Your task to perform on an android device: Open Chrome and go to settings Image 0: 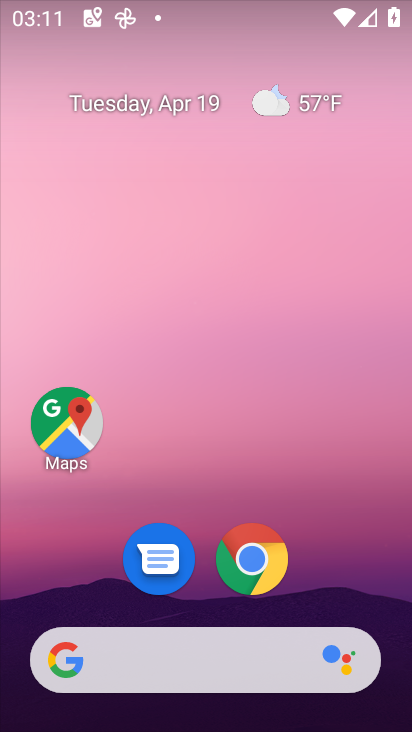
Step 0: drag from (206, 604) to (211, 53)
Your task to perform on an android device: Open Chrome and go to settings Image 1: 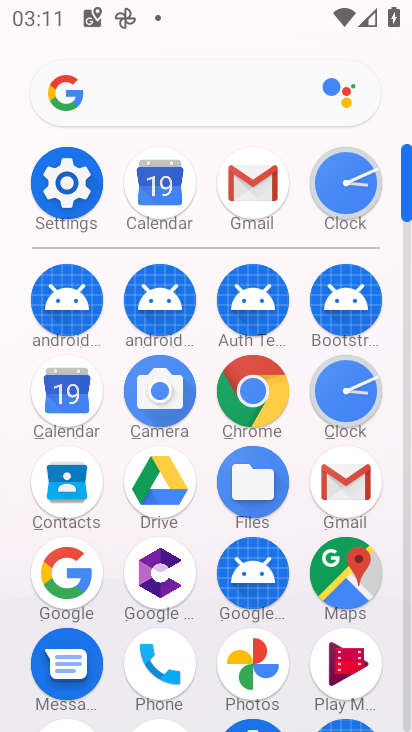
Step 1: click (252, 383)
Your task to perform on an android device: Open Chrome and go to settings Image 2: 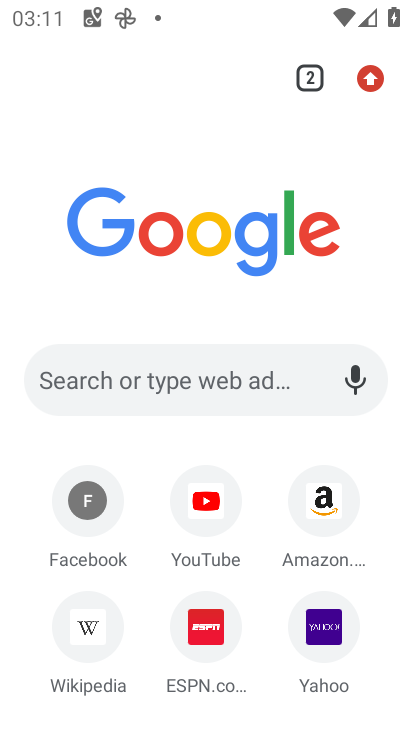
Step 2: click (377, 68)
Your task to perform on an android device: Open Chrome and go to settings Image 3: 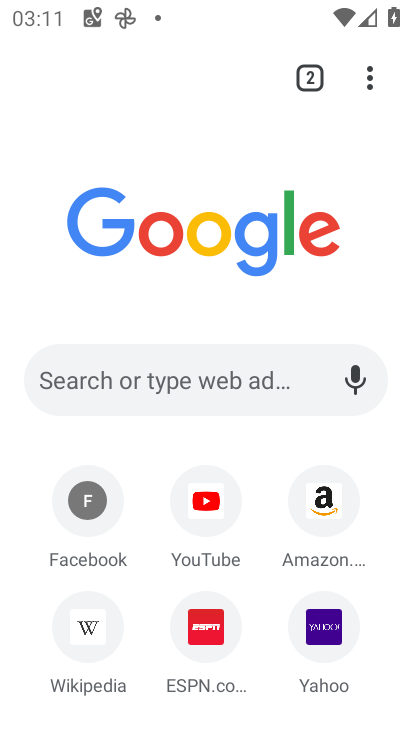
Step 3: click (364, 75)
Your task to perform on an android device: Open Chrome and go to settings Image 4: 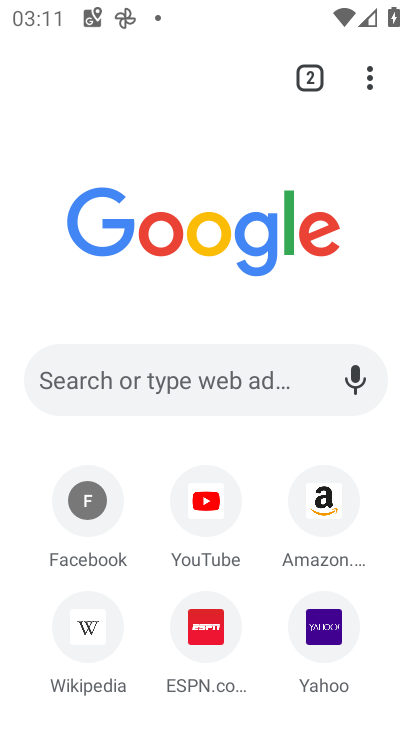
Step 4: click (367, 78)
Your task to perform on an android device: Open Chrome and go to settings Image 5: 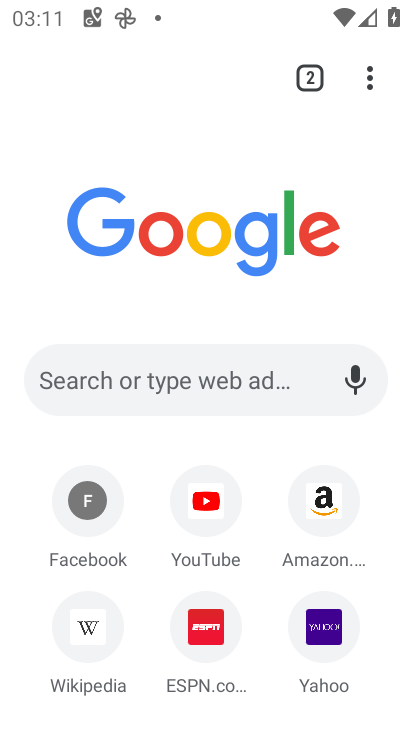
Step 5: click (371, 72)
Your task to perform on an android device: Open Chrome and go to settings Image 6: 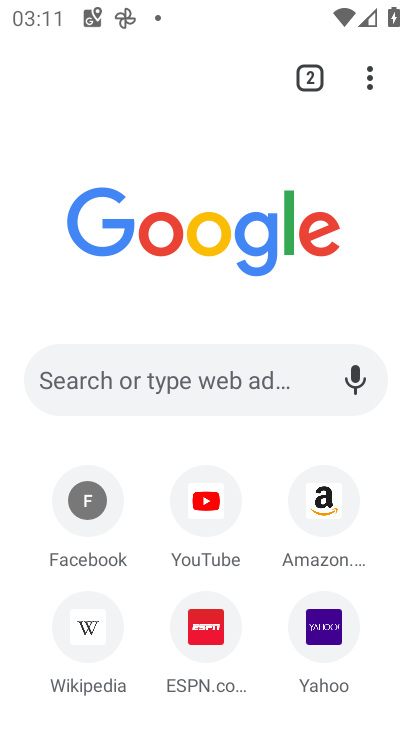
Step 6: click (366, 69)
Your task to perform on an android device: Open Chrome and go to settings Image 7: 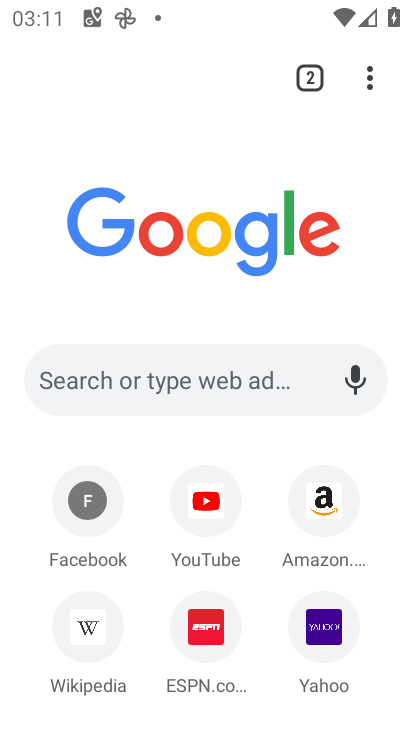
Step 7: click (368, 73)
Your task to perform on an android device: Open Chrome and go to settings Image 8: 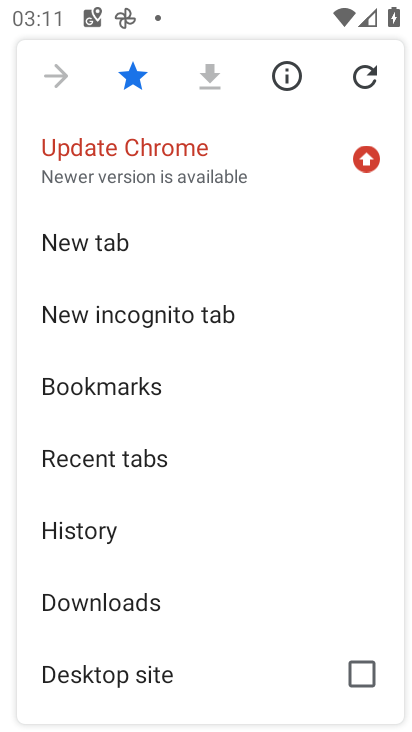
Step 8: drag from (205, 635) to (234, 150)
Your task to perform on an android device: Open Chrome and go to settings Image 9: 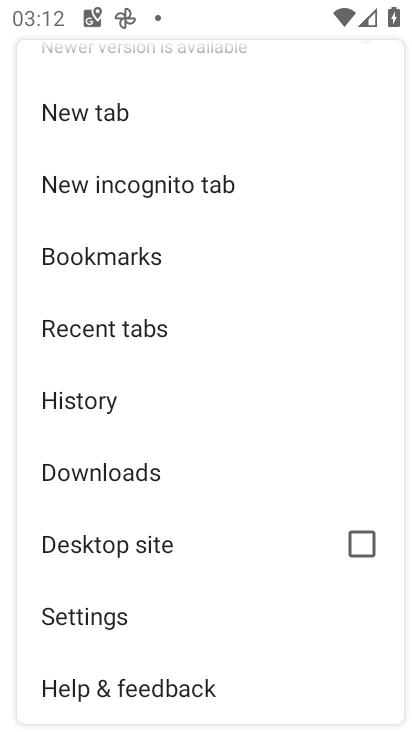
Step 9: click (139, 611)
Your task to perform on an android device: Open Chrome and go to settings Image 10: 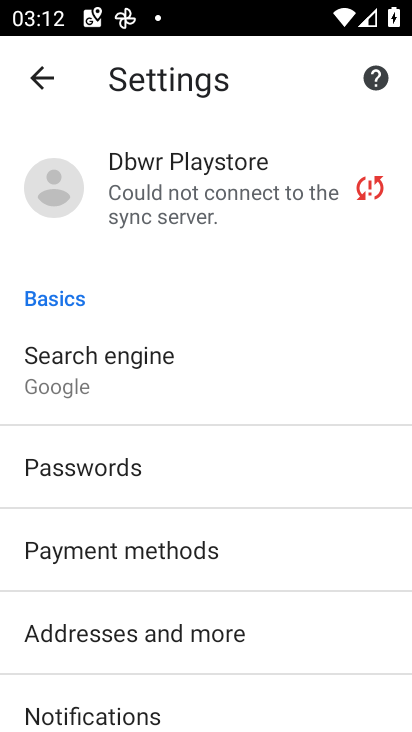
Step 10: task complete